Your task to perform on an android device: Search for razer thresher on ebay, select the first entry, add it to the cart, then select checkout. Image 0: 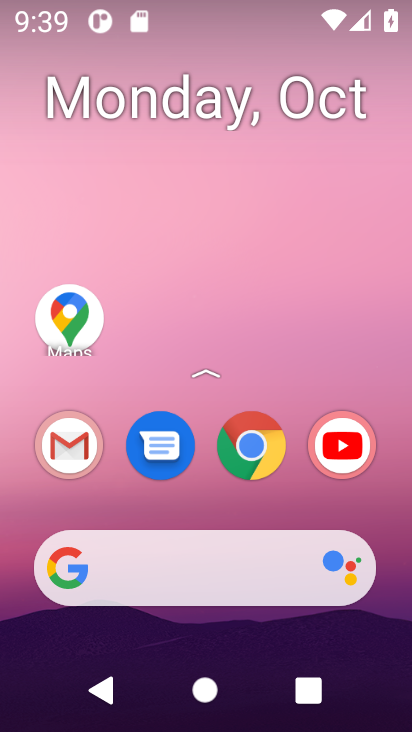
Step 0: click (242, 547)
Your task to perform on an android device: Search for razer thresher on ebay, select the first entry, add it to the cart, then select checkout. Image 1: 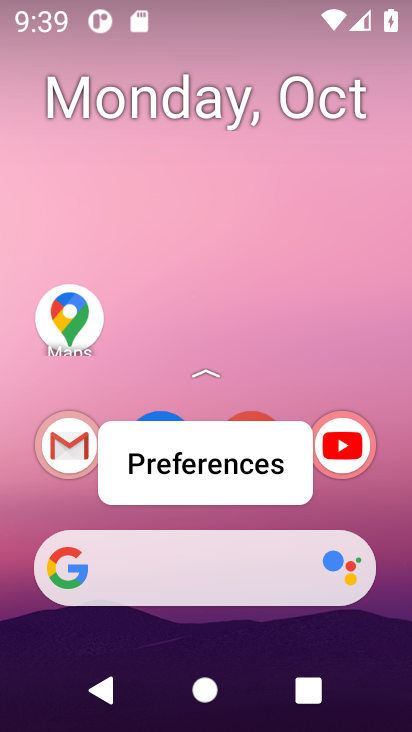
Step 1: click (240, 552)
Your task to perform on an android device: Search for razer thresher on ebay, select the first entry, add it to the cart, then select checkout. Image 2: 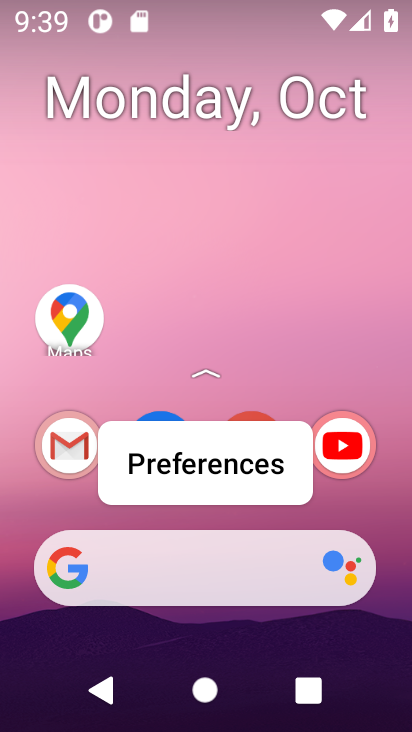
Step 2: click (239, 553)
Your task to perform on an android device: Search for razer thresher on ebay, select the first entry, add it to the cart, then select checkout. Image 3: 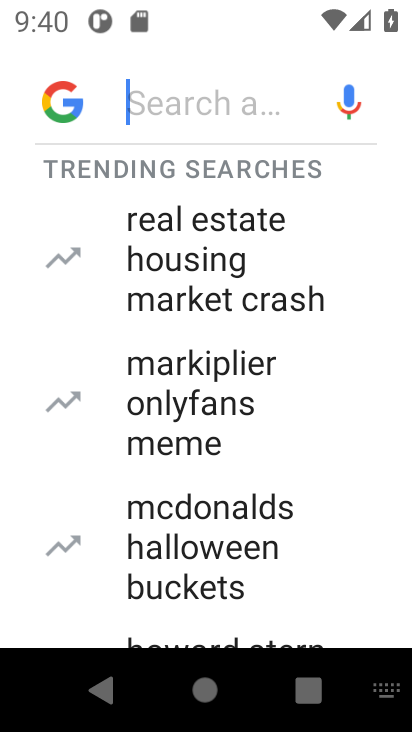
Step 3: type "ebay"
Your task to perform on an android device: Search for razer thresher on ebay, select the first entry, add it to the cart, then select checkout. Image 4: 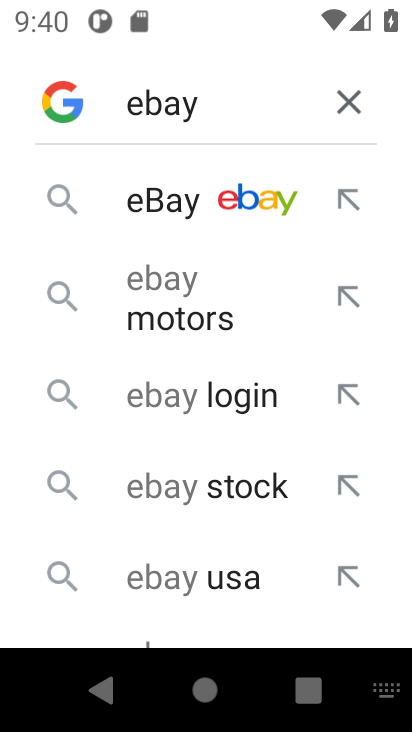
Step 4: type ""
Your task to perform on an android device: Search for razer thresher on ebay, select the first entry, add it to the cart, then select checkout. Image 5: 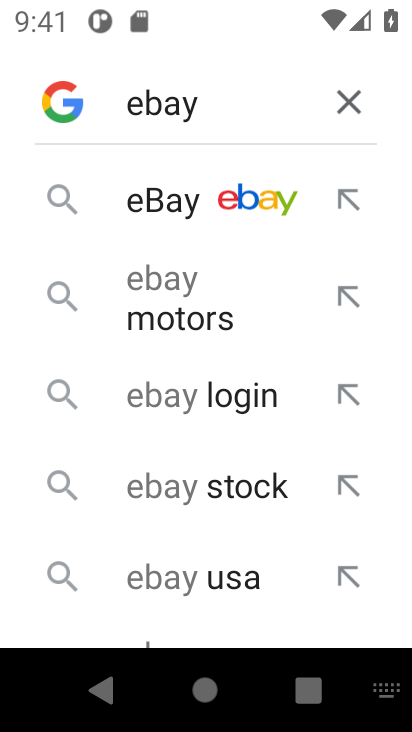
Step 5: click (151, 217)
Your task to perform on an android device: Search for razer thresher on ebay, select the first entry, add it to the cart, then select checkout. Image 6: 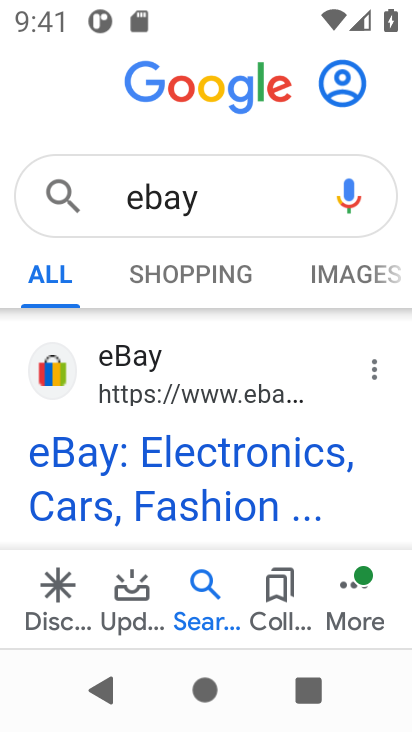
Step 6: click (185, 506)
Your task to perform on an android device: Search for razer thresher on ebay, select the first entry, add it to the cart, then select checkout. Image 7: 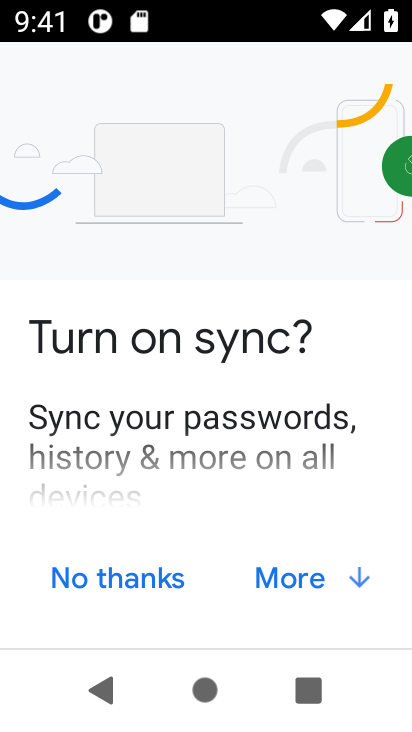
Step 7: click (106, 576)
Your task to perform on an android device: Search for razer thresher on ebay, select the first entry, add it to the cart, then select checkout. Image 8: 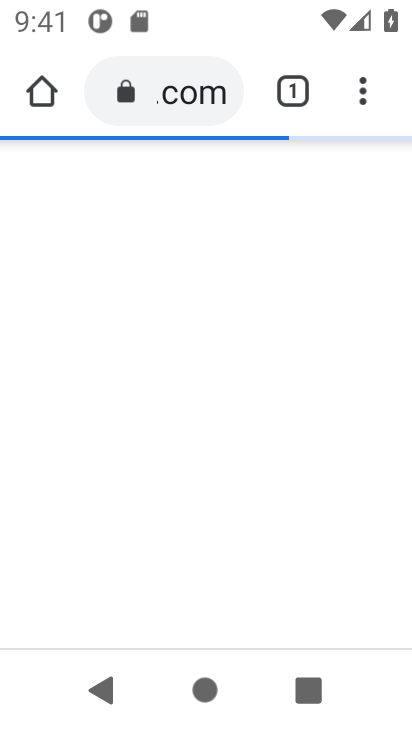
Step 8: click (360, 91)
Your task to perform on an android device: Search for razer thresher on ebay, select the first entry, add it to the cart, then select checkout. Image 9: 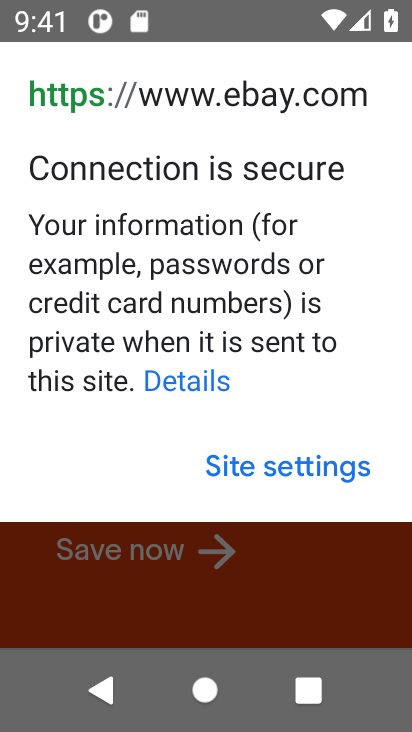
Step 9: click (260, 473)
Your task to perform on an android device: Search for razer thresher on ebay, select the first entry, add it to the cart, then select checkout. Image 10: 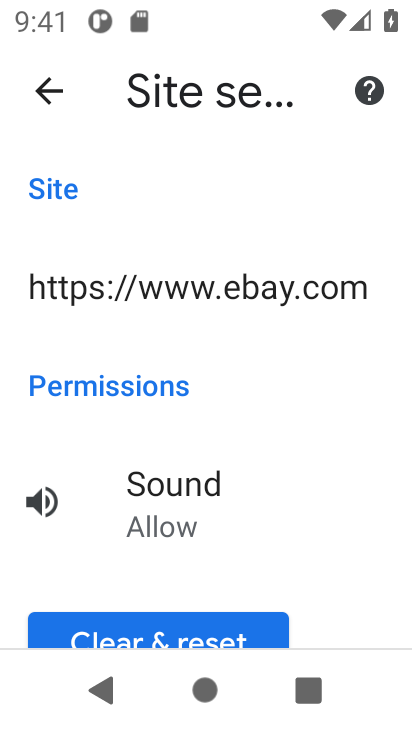
Step 10: click (47, 95)
Your task to perform on an android device: Search for razer thresher on ebay, select the first entry, add it to the cart, then select checkout. Image 11: 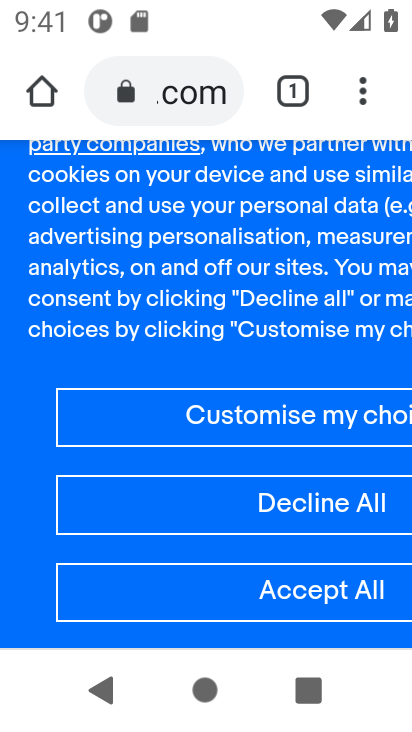
Step 11: click (361, 77)
Your task to perform on an android device: Search for razer thresher on ebay, select the first entry, add it to the cart, then select checkout. Image 12: 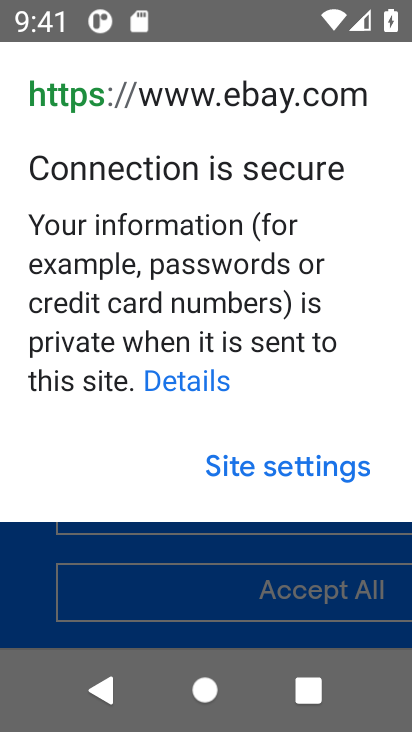
Step 12: click (169, 571)
Your task to perform on an android device: Search for razer thresher on ebay, select the first entry, add it to the cart, then select checkout. Image 13: 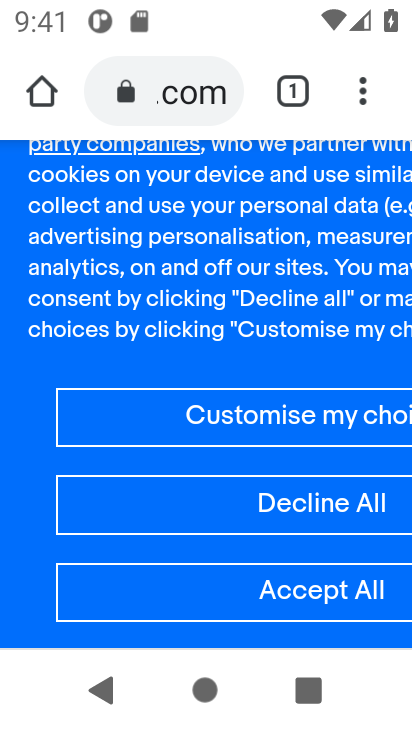
Step 13: click (362, 94)
Your task to perform on an android device: Search for razer thresher on ebay, select the first entry, add it to the cart, then select checkout. Image 14: 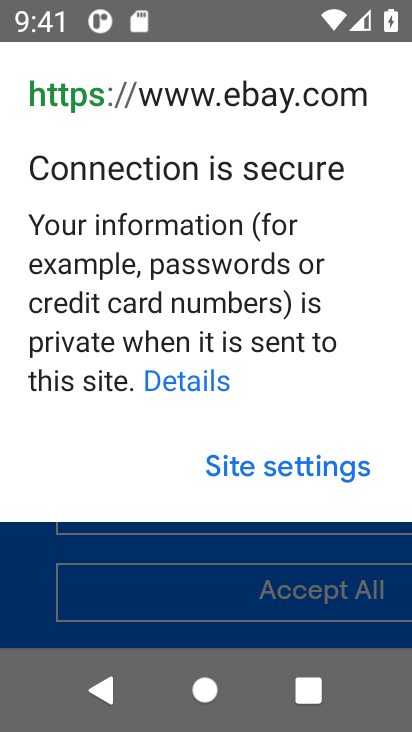
Step 14: click (107, 583)
Your task to perform on an android device: Search for razer thresher on ebay, select the first entry, add it to the cart, then select checkout. Image 15: 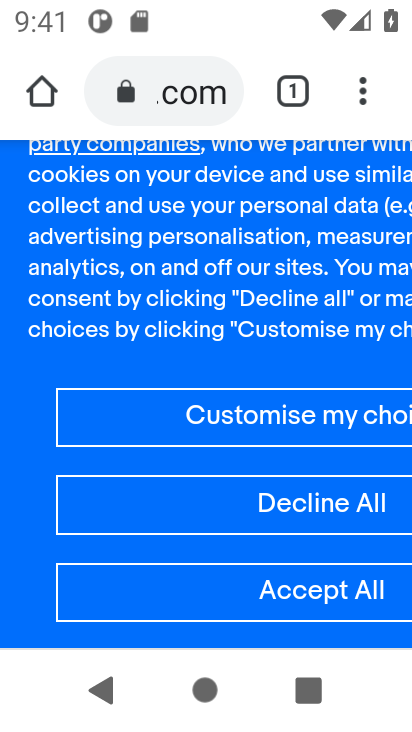
Step 15: click (355, 91)
Your task to perform on an android device: Search for razer thresher on ebay, select the first entry, add it to the cart, then select checkout. Image 16: 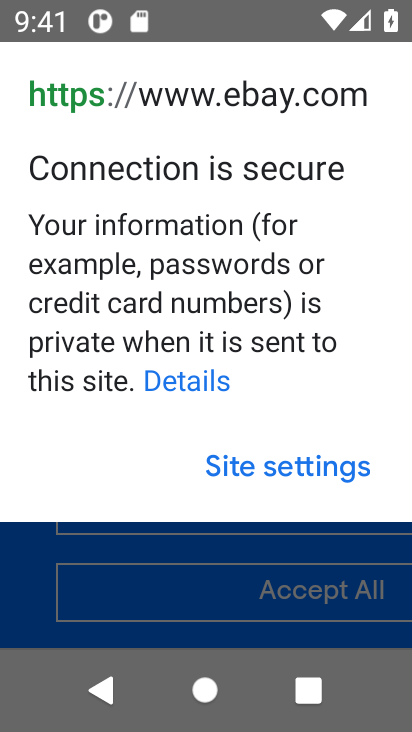
Step 16: click (360, 90)
Your task to perform on an android device: Search for razer thresher on ebay, select the first entry, add it to the cart, then select checkout. Image 17: 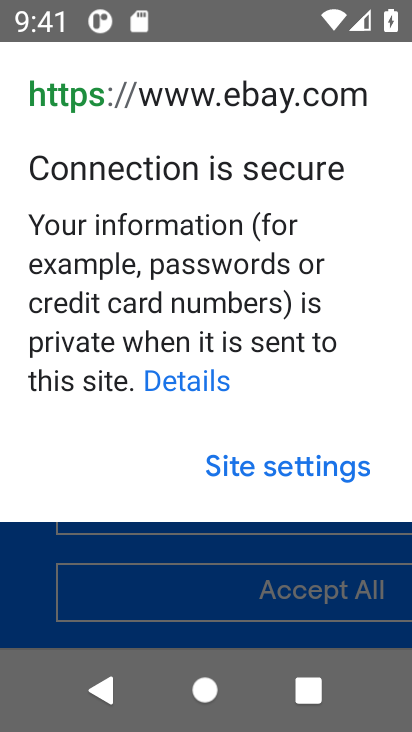
Step 17: click (50, 718)
Your task to perform on an android device: Search for razer thresher on ebay, select the first entry, add it to the cart, then select checkout. Image 18: 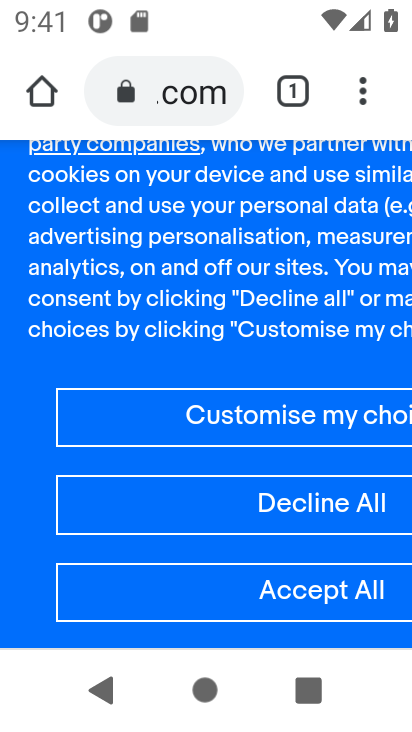
Step 18: click (257, 498)
Your task to perform on an android device: Search for razer thresher on ebay, select the first entry, add it to the cart, then select checkout. Image 19: 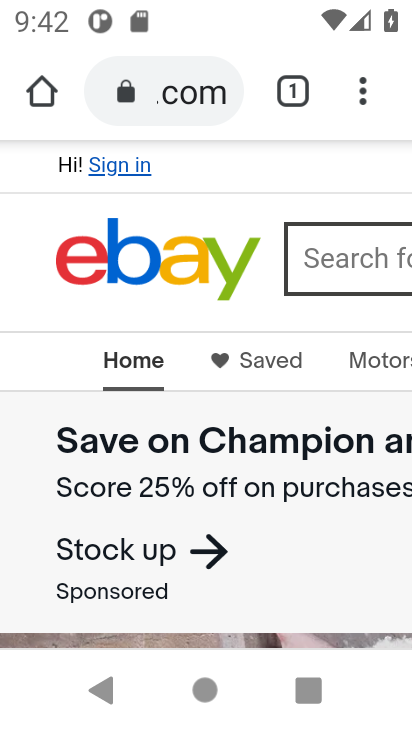
Step 19: click (347, 112)
Your task to perform on an android device: Search for razer thresher on ebay, select the first entry, add it to the cart, then select checkout. Image 20: 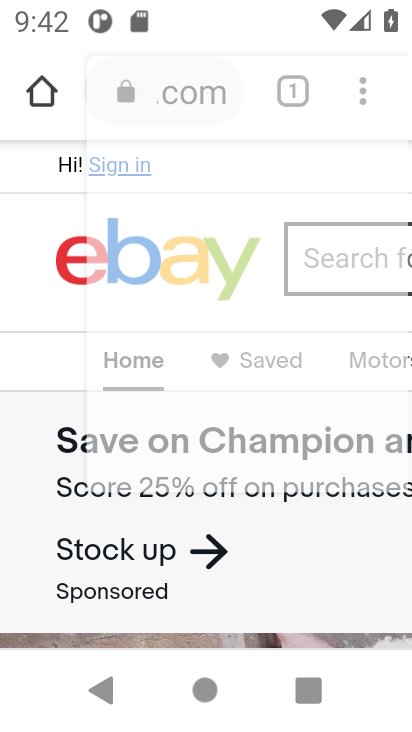
Step 20: click (355, 93)
Your task to perform on an android device: Search for razer thresher on ebay, select the first entry, add it to the cart, then select checkout. Image 21: 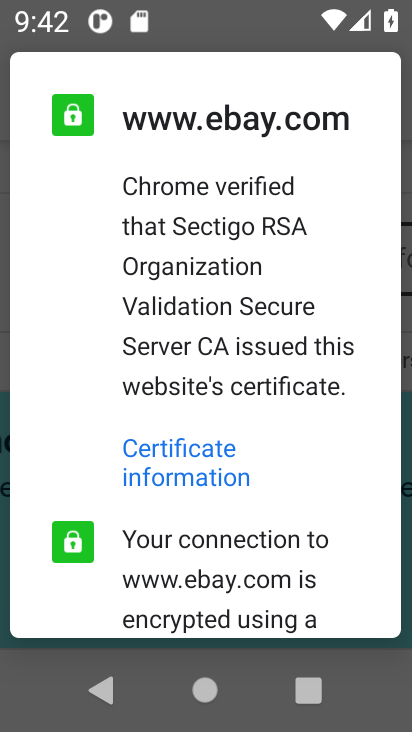
Step 21: task complete